Your task to perform on an android device: turn off translation in the chrome app Image 0: 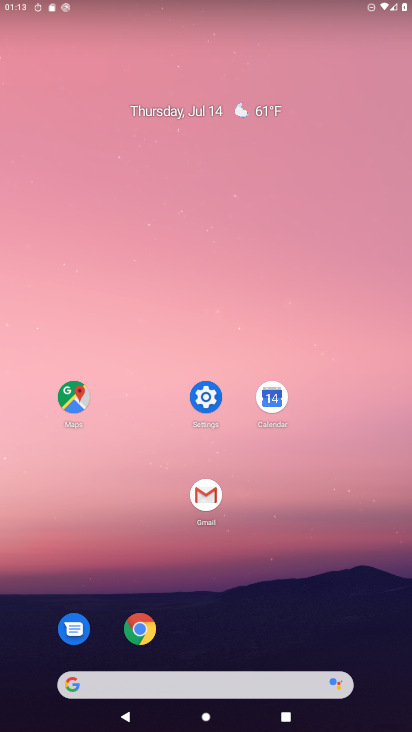
Step 0: click (134, 631)
Your task to perform on an android device: turn off translation in the chrome app Image 1: 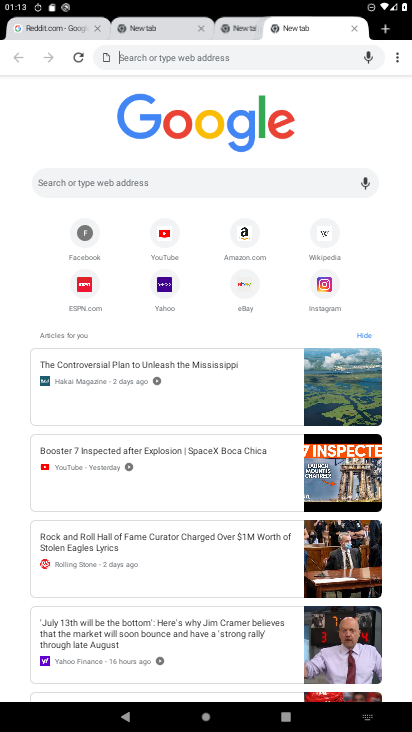
Step 1: click (393, 60)
Your task to perform on an android device: turn off translation in the chrome app Image 2: 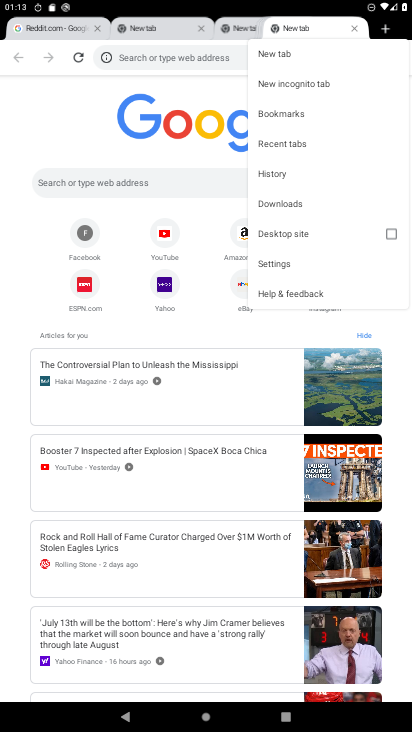
Step 2: click (277, 263)
Your task to perform on an android device: turn off translation in the chrome app Image 3: 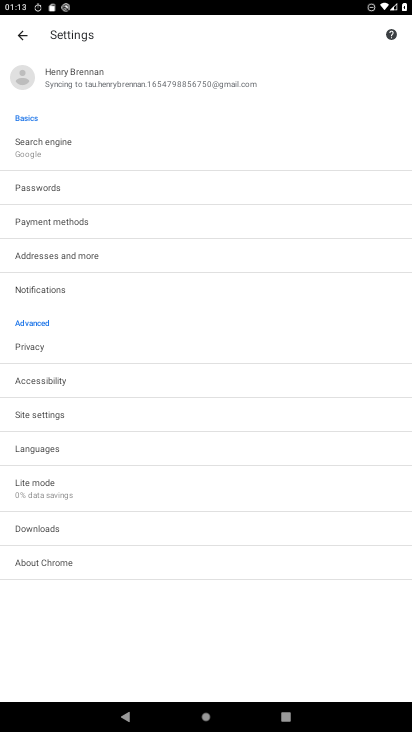
Step 3: click (79, 448)
Your task to perform on an android device: turn off translation in the chrome app Image 4: 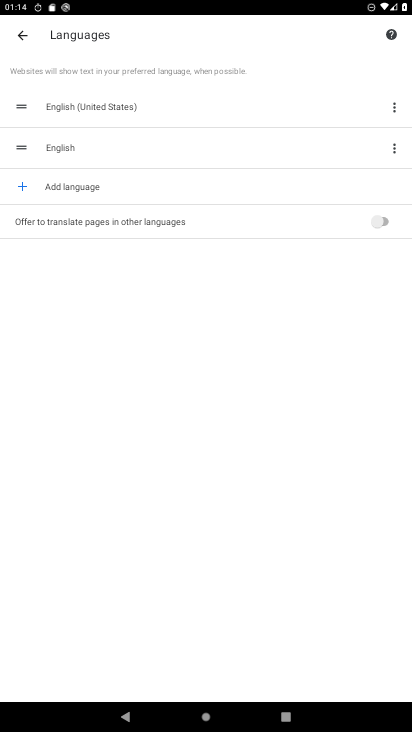
Step 4: task complete